Your task to perform on an android device: change the clock display to digital Image 0: 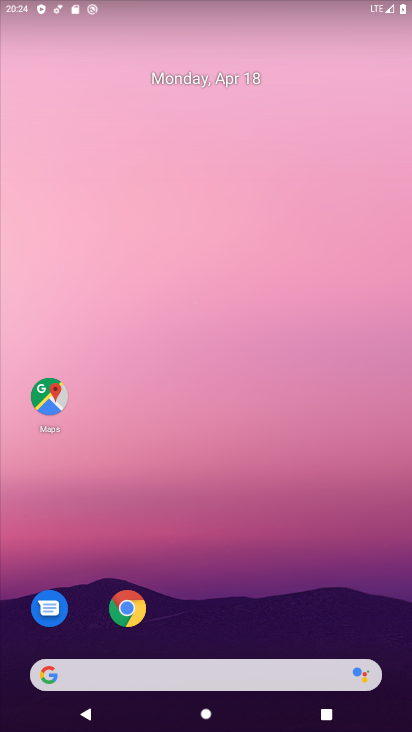
Step 0: drag from (224, 612) to (240, 157)
Your task to perform on an android device: change the clock display to digital Image 1: 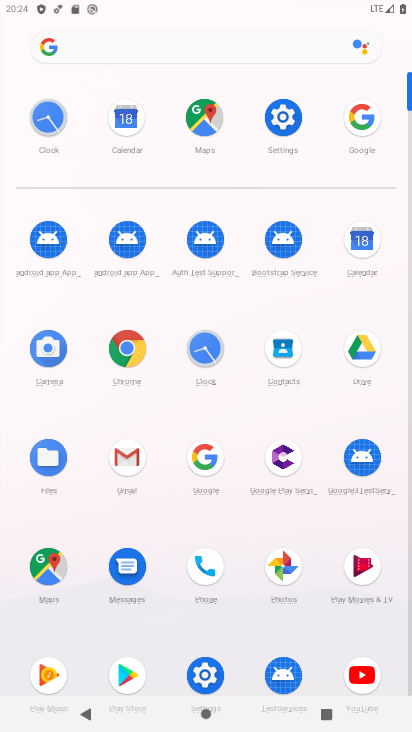
Step 1: click (206, 350)
Your task to perform on an android device: change the clock display to digital Image 2: 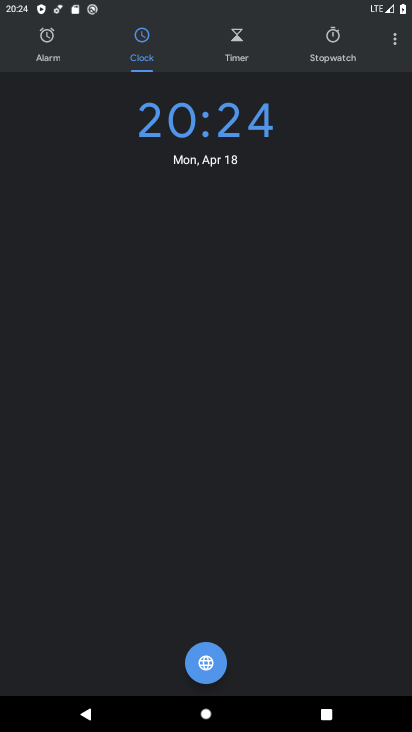
Step 2: click (394, 39)
Your task to perform on an android device: change the clock display to digital Image 3: 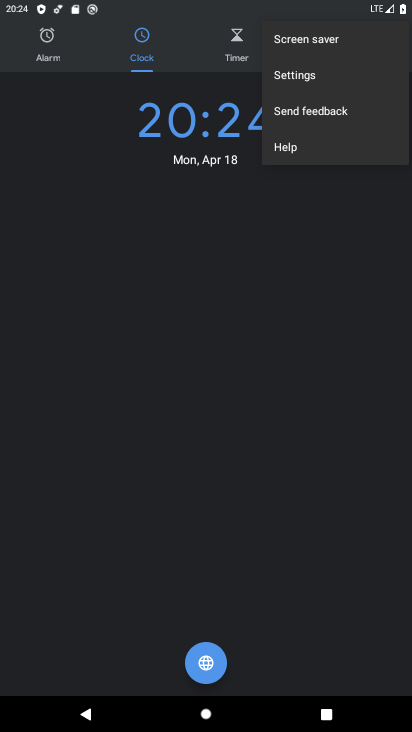
Step 3: click (295, 77)
Your task to perform on an android device: change the clock display to digital Image 4: 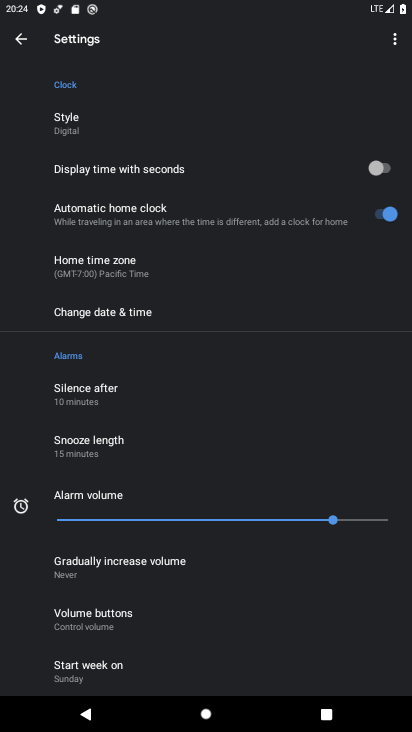
Step 4: click (100, 125)
Your task to perform on an android device: change the clock display to digital Image 5: 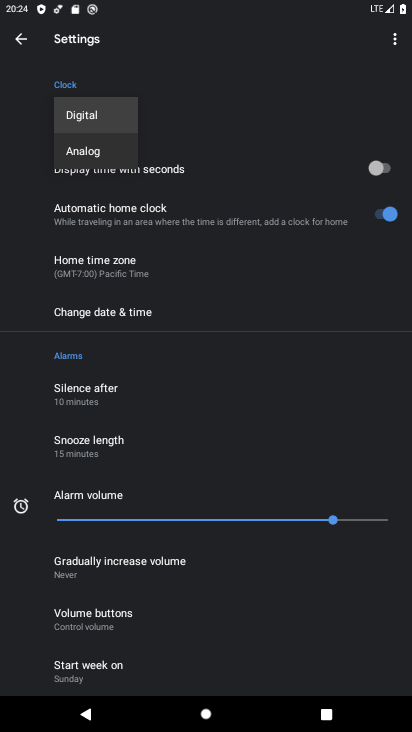
Step 5: click (100, 125)
Your task to perform on an android device: change the clock display to digital Image 6: 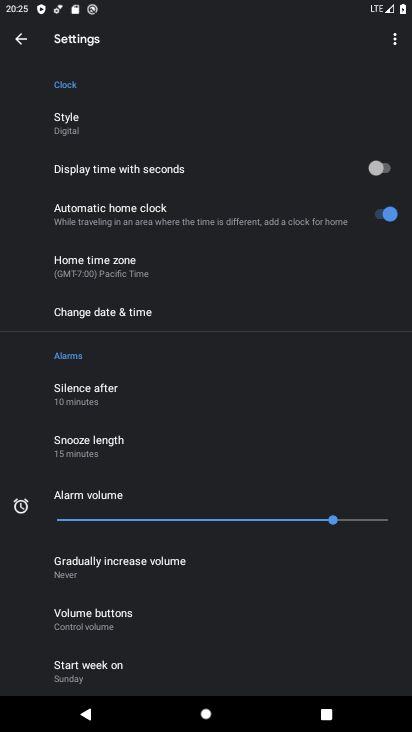
Step 6: task complete